Your task to perform on an android device: change notifications settings Image 0: 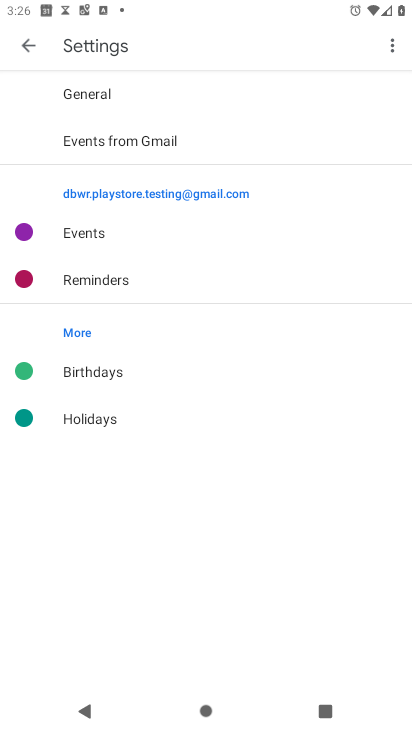
Step 0: press home button
Your task to perform on an android device: change notifications settings Image 1: 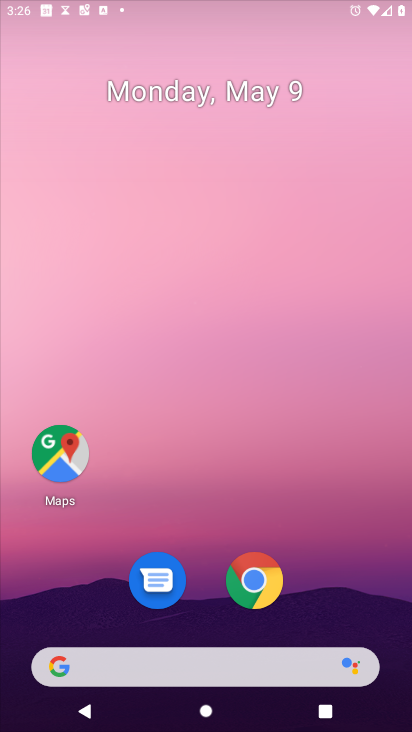
Step 1: drag from (348, 595) to (290, 116)
Your task to perform on an android device: change notifications settings Image 2: 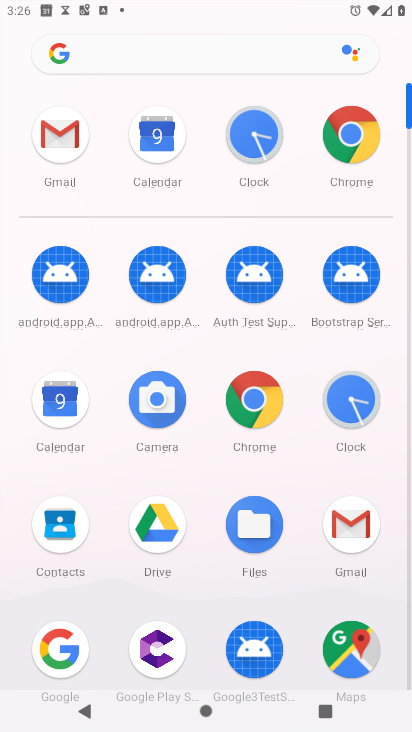
Step 2: drag from (197, 531) to (229, 126)
Your task to perform on an android device: change notifications settings Image 3: 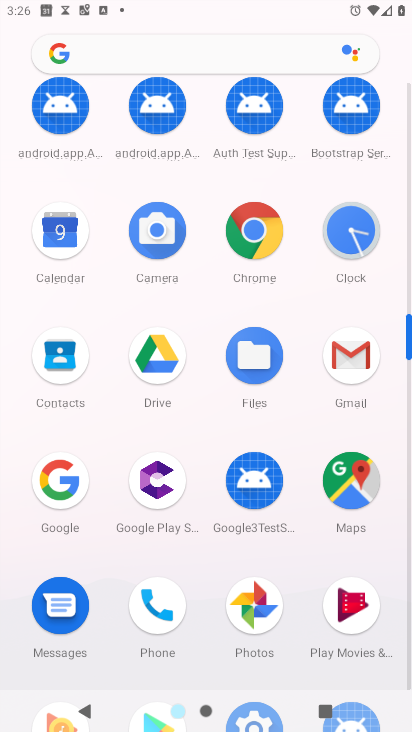
Step 3: drag from (257, 670) to (214, 341)
Your task to perform on an android device: change notifications settings Image 4: 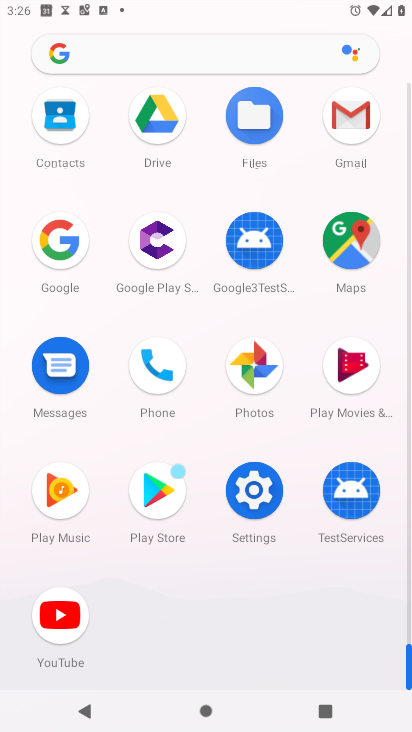
Step 4: click (273, 475)
Your task to perform on an android device: change notifications settings Image 5: 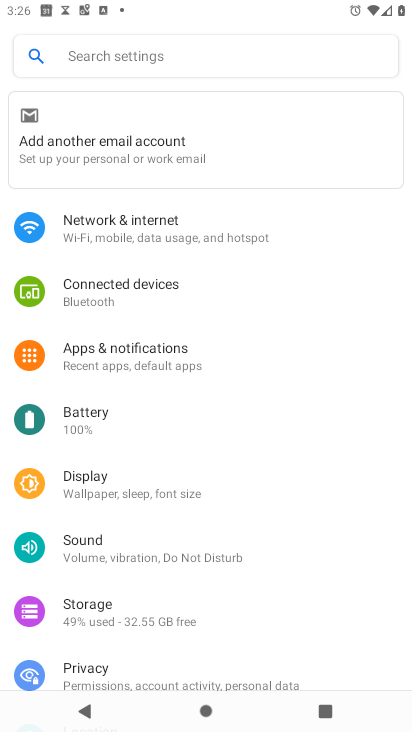
Step 5: click (171, 348)
Your task to perform on an android device: change notifications settings Image 6: 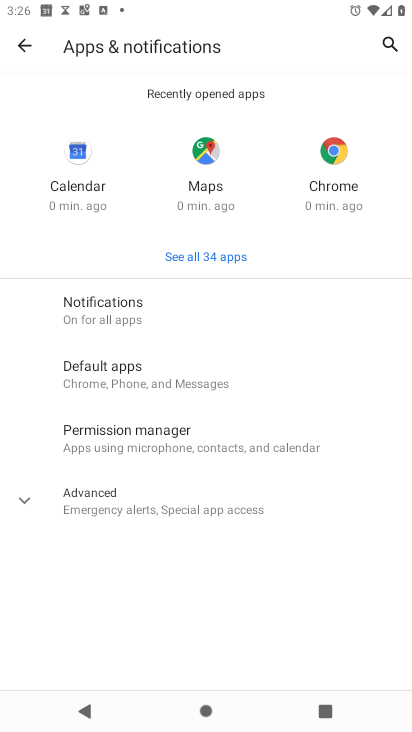
Step 6: click (112, 313)
Your task to perform on an android device: change notifications settings Image 7: 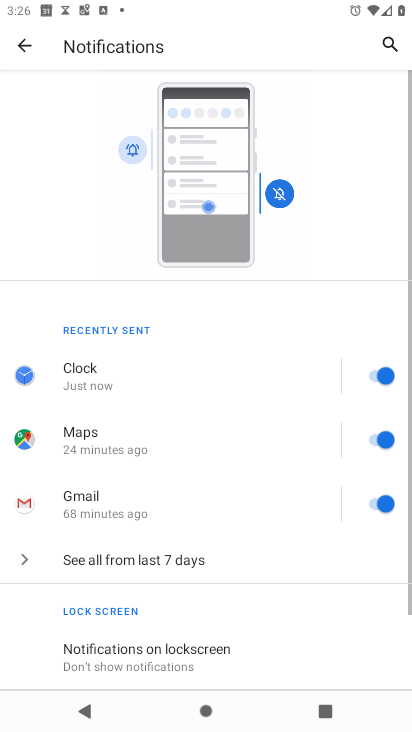
Step 7: click (379, 502)
Your task to perform on an android device: change notifications settings Image 8: 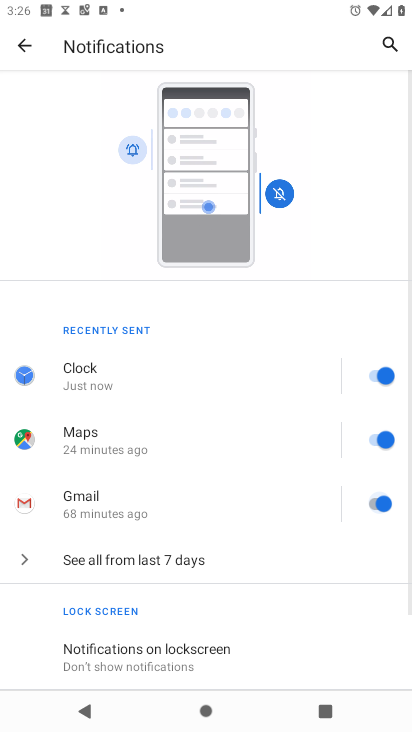
Step 8: click (384, 406)
Your task to perform on an android device: change notifications settings Image 9: 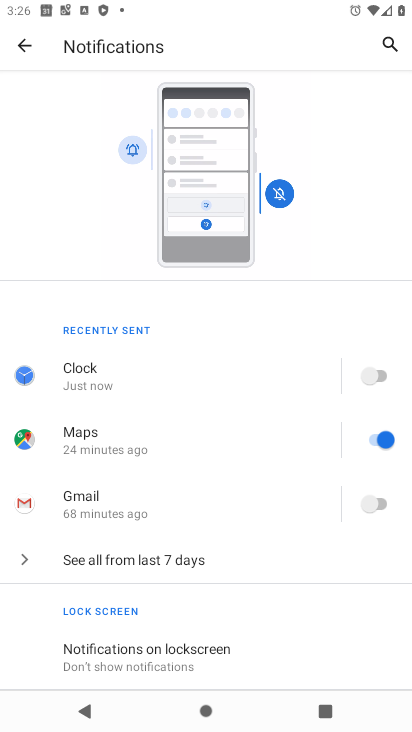
Step 9: click (379, 377)
Your task to perform on an android device: change notifications settings Image 10: 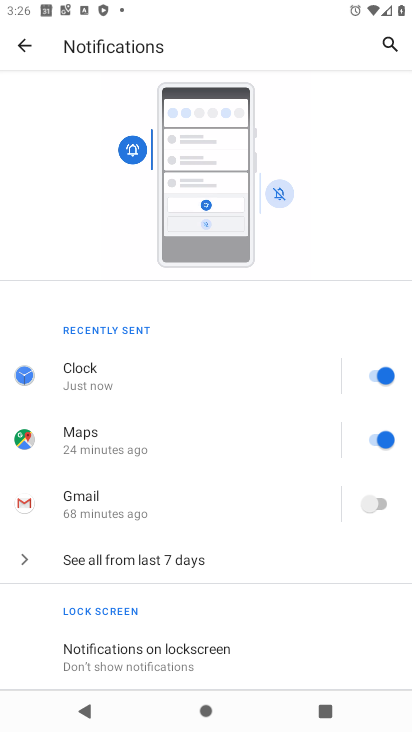
Step 10: click (379, 443)
Your task to perform on an android device: change notifications settings Image 11: 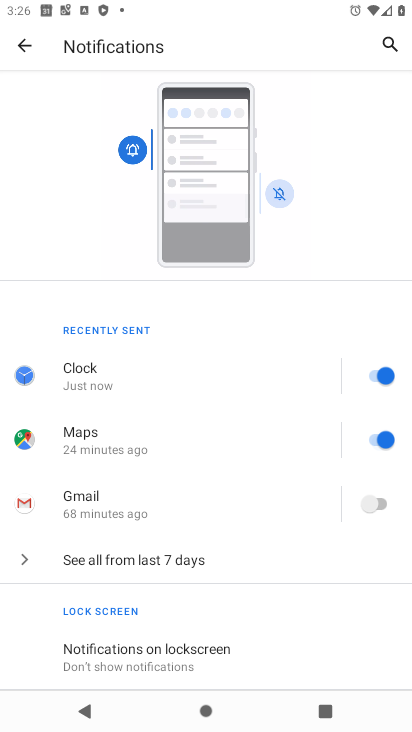
Step 11: click (387, 360)
Your task to perform on an android device: change notifications settings Image 12: 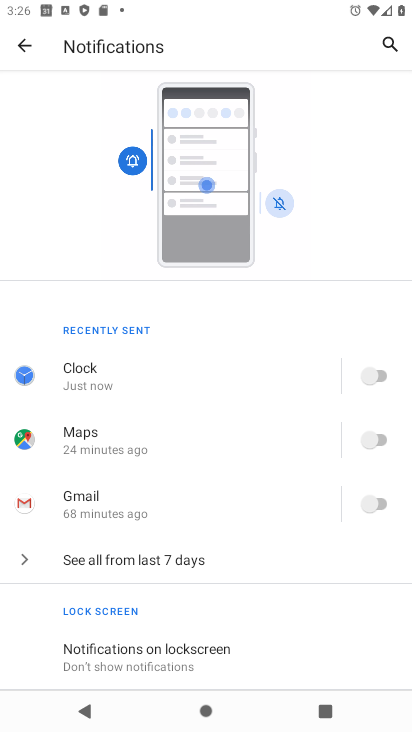
Step 12: task complete